Your task to perform on an android device: open app "McDonald's" Image 0: 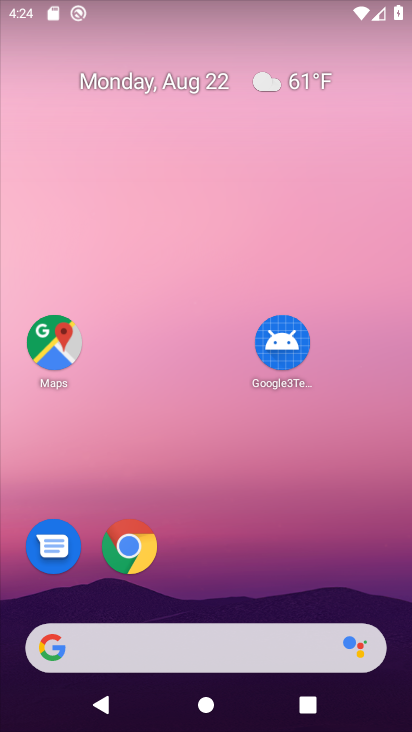
Step 0: drag from (395, 610) to (361, 108)
Your task to perform on an android device: open app "McDonald's" Image 1: 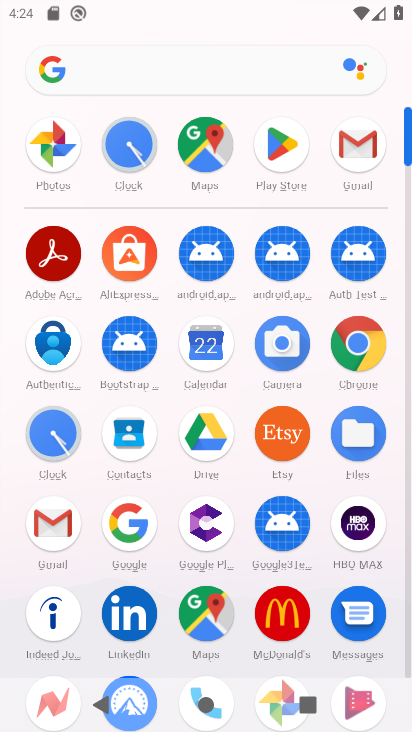
Step 1: click (407, 612)
Your task to perform on an android device: open app "McDonald's" Image 2: 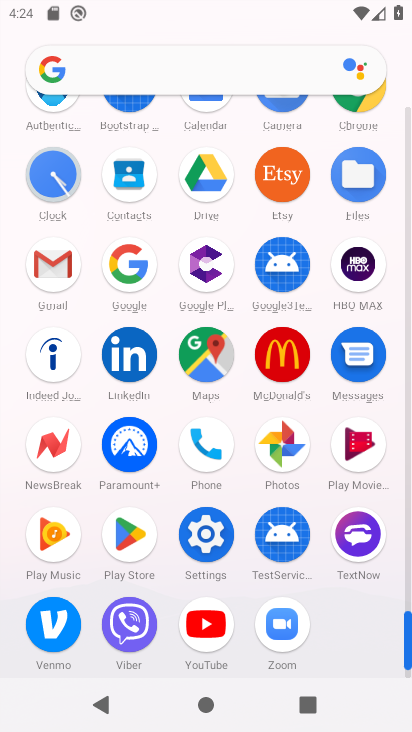
Step 2: click (130, 533)
Your task to perform on an android device: open app "McDonald's" Image 3: 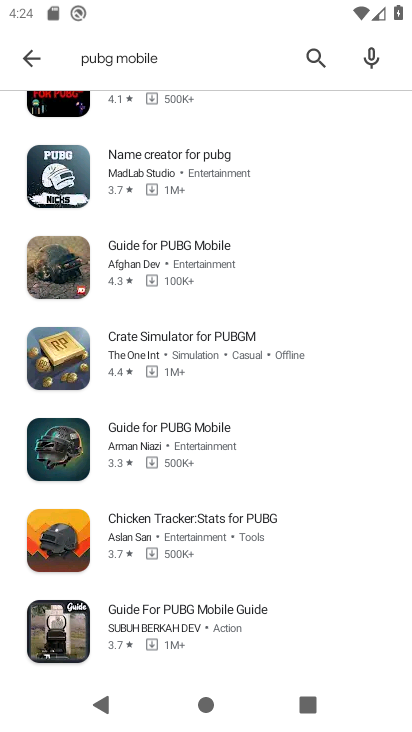
Step 3: click (310, 50)
Your task to perform on an android device: open app "McDonald's" Image 4: 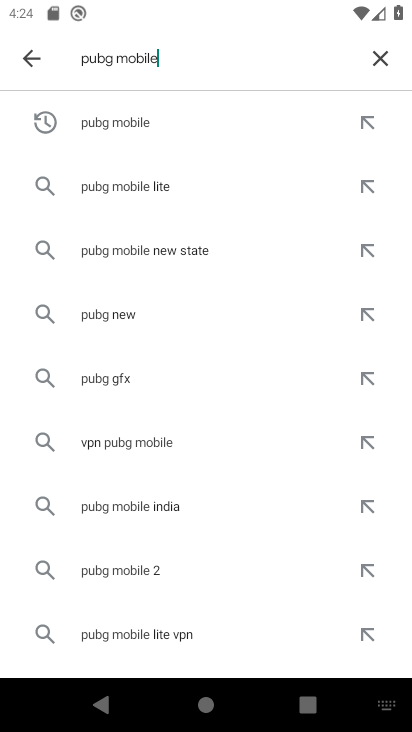
Step 4: click (382, 54)
Your task to perform on an android device: open app "McDonald's" Image 5: 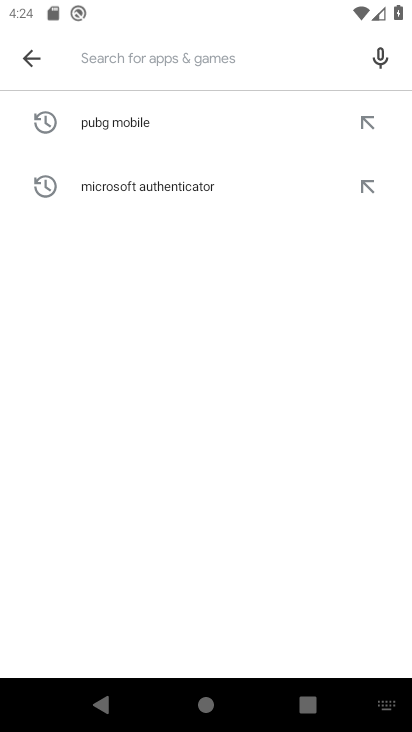
Step 5: type "McDonald's"
Your task to perform on an android device: open app "McDonald's" Image 6: 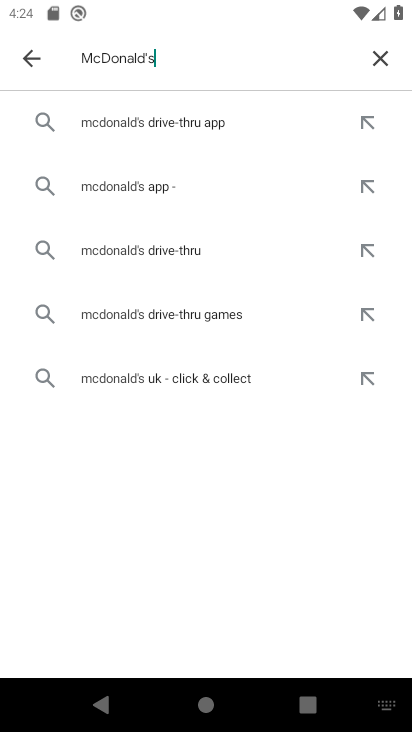
Step 6: click (123, 189)
Your task to perform on an android device: open app "McDonald's" Image 7: 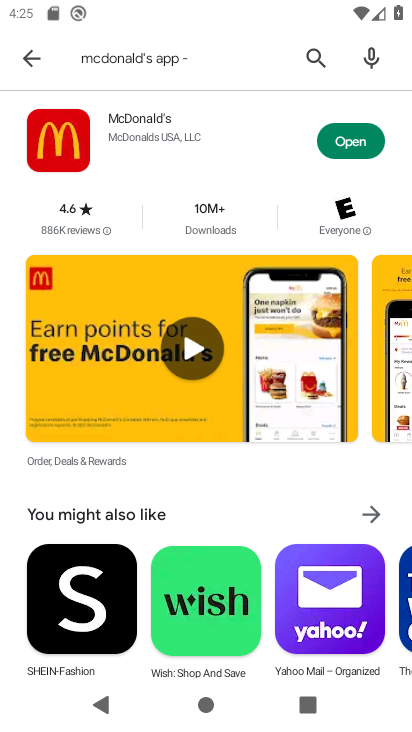
Step 7: click (348, 142)
Your task to perform on an android device: open app "McDonald's" Image 8: 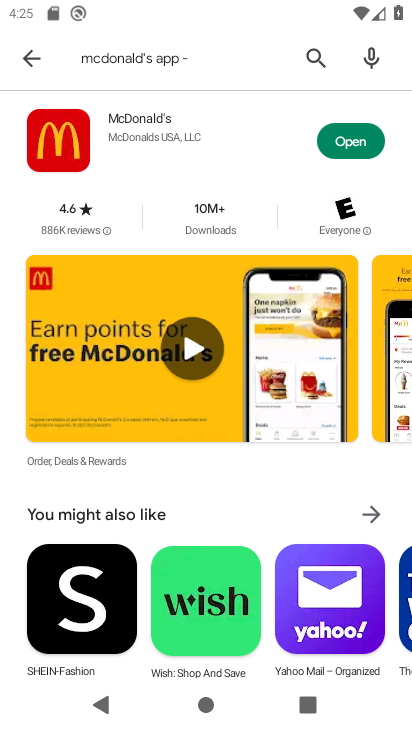
Step 8: click (356, 141)
Your task to perform on an android device: open app "McDonald's" Image 9: 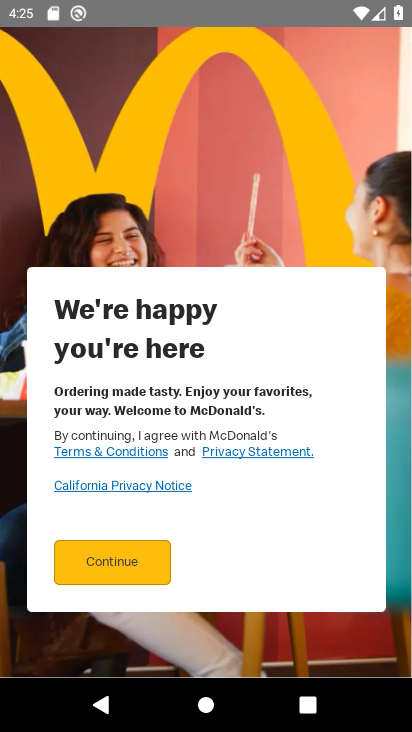
Step 9: task complete